Your task to perform on an android device: turn on airplane mode Image 0: 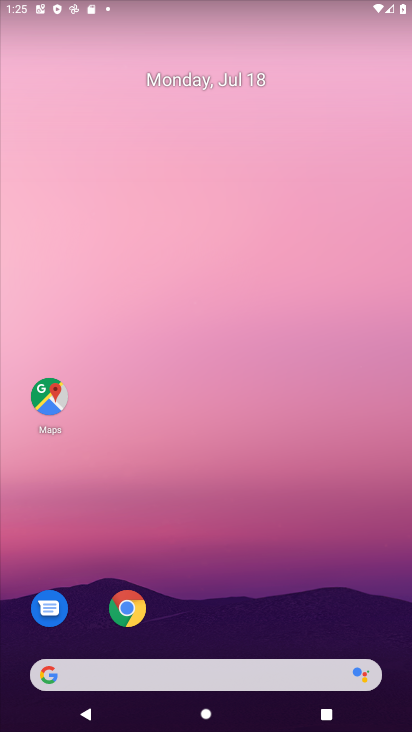
Step 0: drag from (252, 3) to (204, 611)
Your task to perform on an android device: turn on airplane mode Image 1: 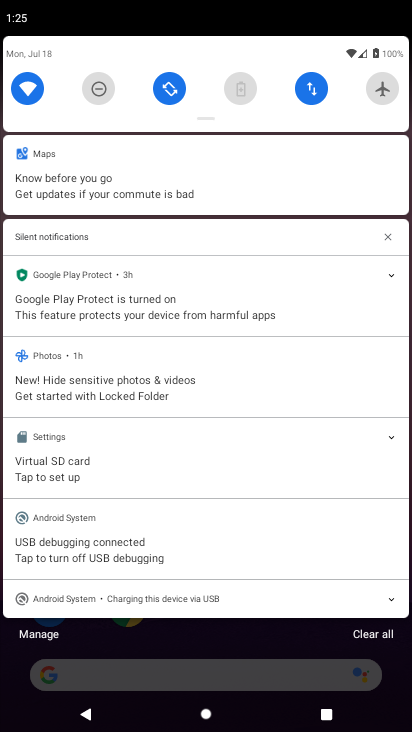
Step 1: click (383, 91)
Your task to perform on an android device: turn on airplane mode Image 2: 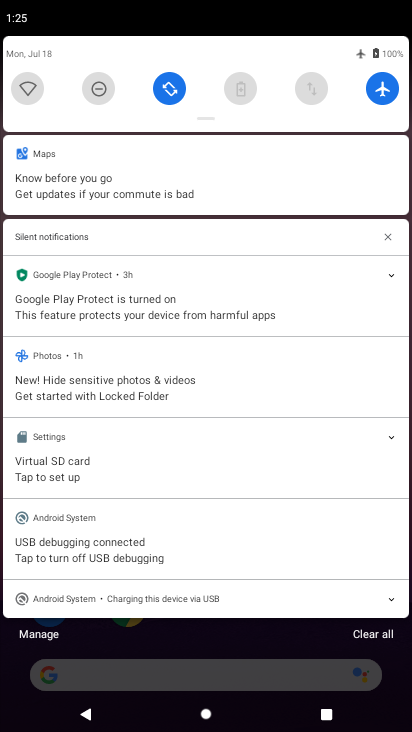
Step 2: task complete